Your task to perform on an android device: toggle data saver in the chrome app Image 0: 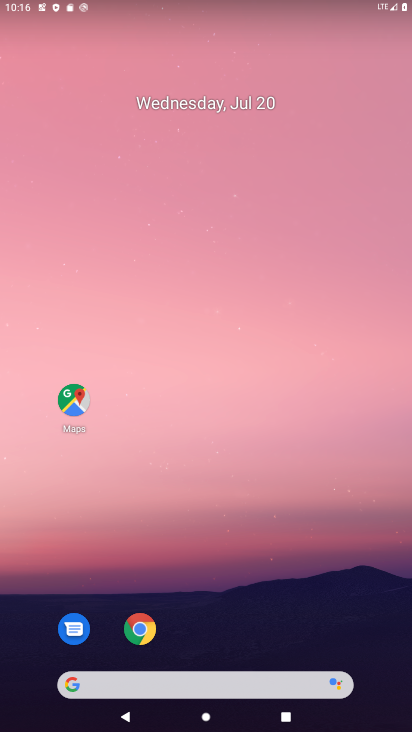
Step 0: press home button
Your task to perform on an android device: toggle data saver in the chrome app Image 1: 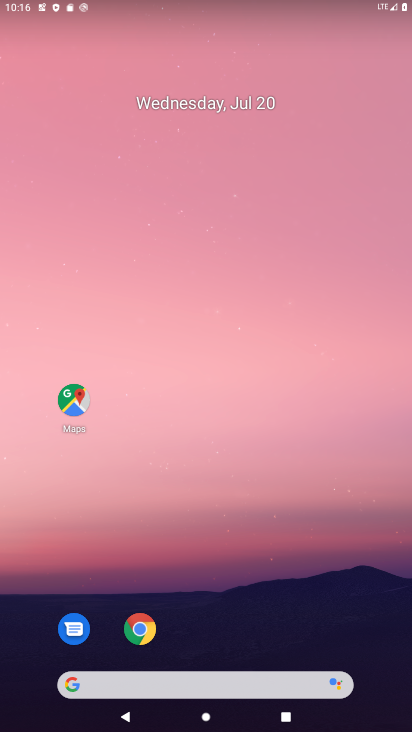
Step 1: drag from (237, 559) to (221, 0)
Your task to perform on an android device: toggle data saver in the chrome app Image 2: 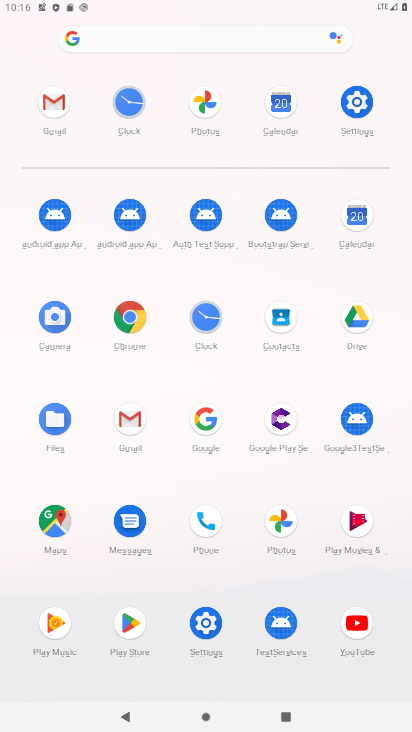
Step 2: click (147, 333)
Your task to perform on an android device: toggle data saver in the chrome app Image 3: 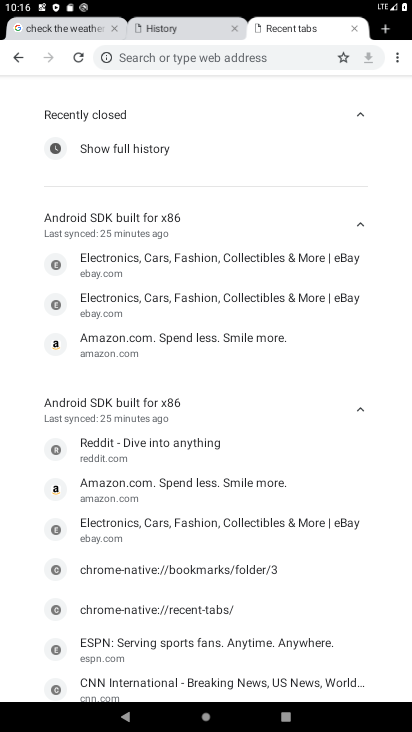
Step 3: drag from (399, 66) to (283, 300)
Your task to perform on an android device: toggle data saver in the chrome app Image 4: 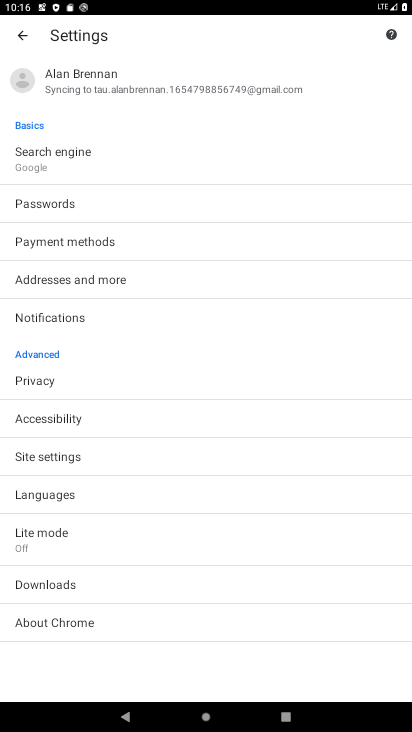
Step 4: click (39, 535)
Your task to perform on an android device: toggle data saver in the chrome app Image 5: 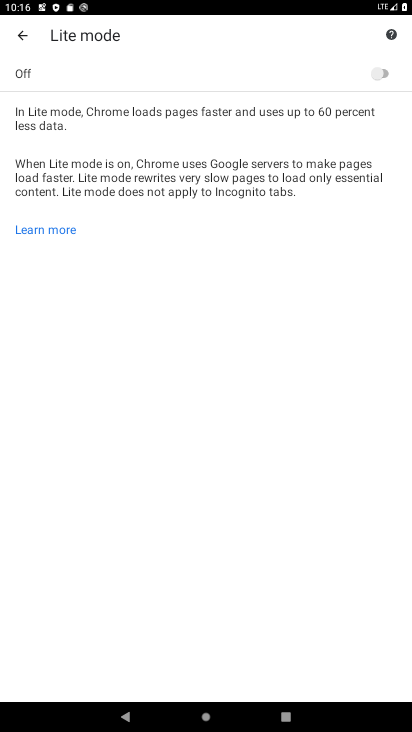
Step 5: click (335, 74)
Your task to perform on an android device: toggle data saver in the chrome app Image 6: 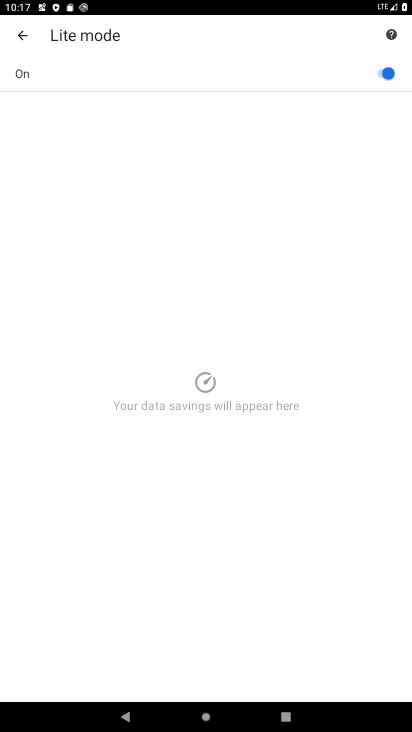
Step 6: task complete